Your task to perform on an android device: check storage Image 0: 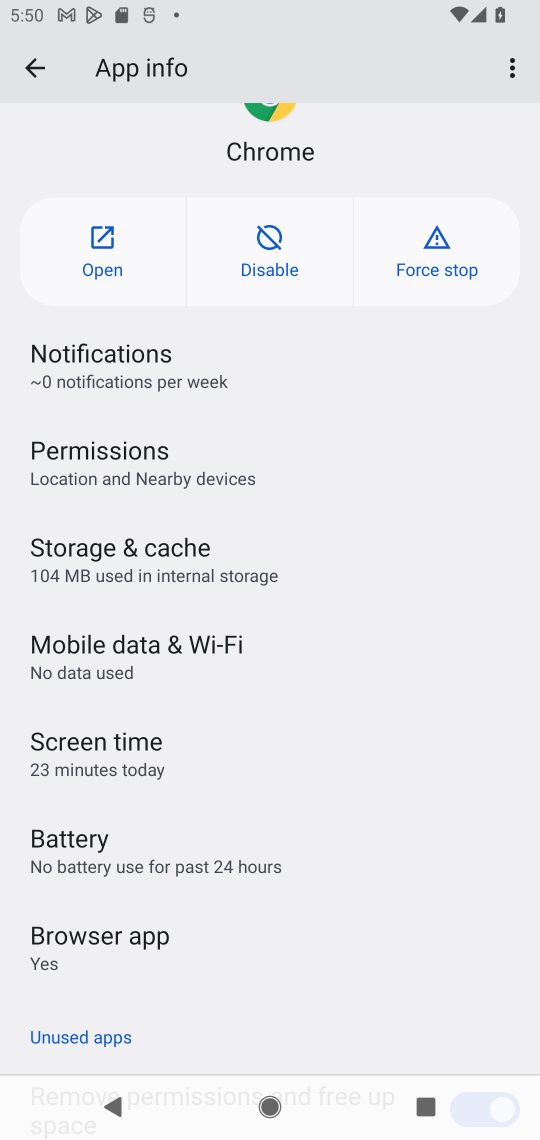
Step 0: press home button
Your task to perform on an android device: check storage Image 1: 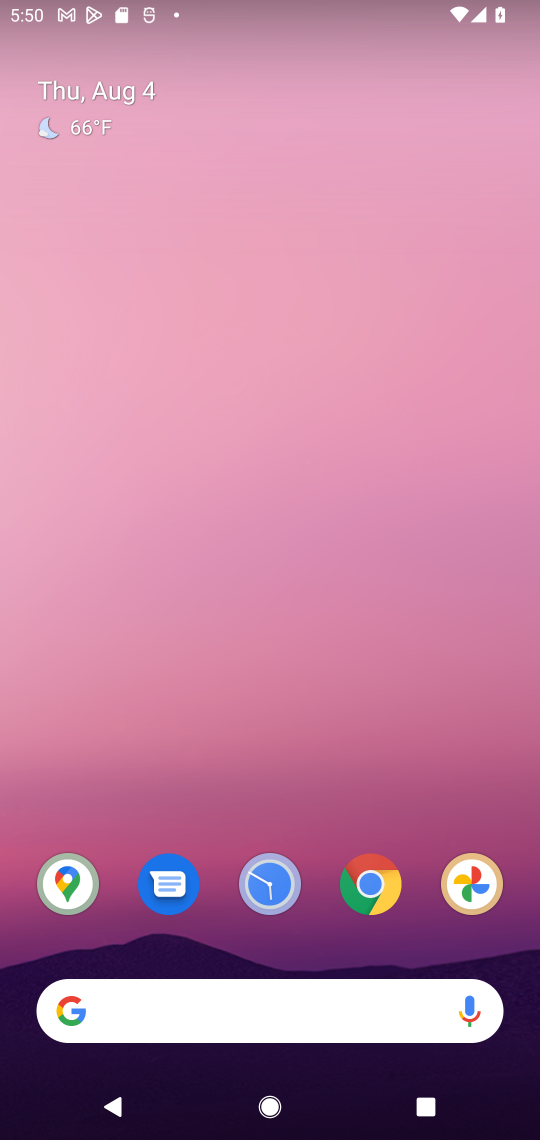
Step 1: drag from (299, 956) to (286, 184)
Your task to perform on an android device: check storage Image 2: 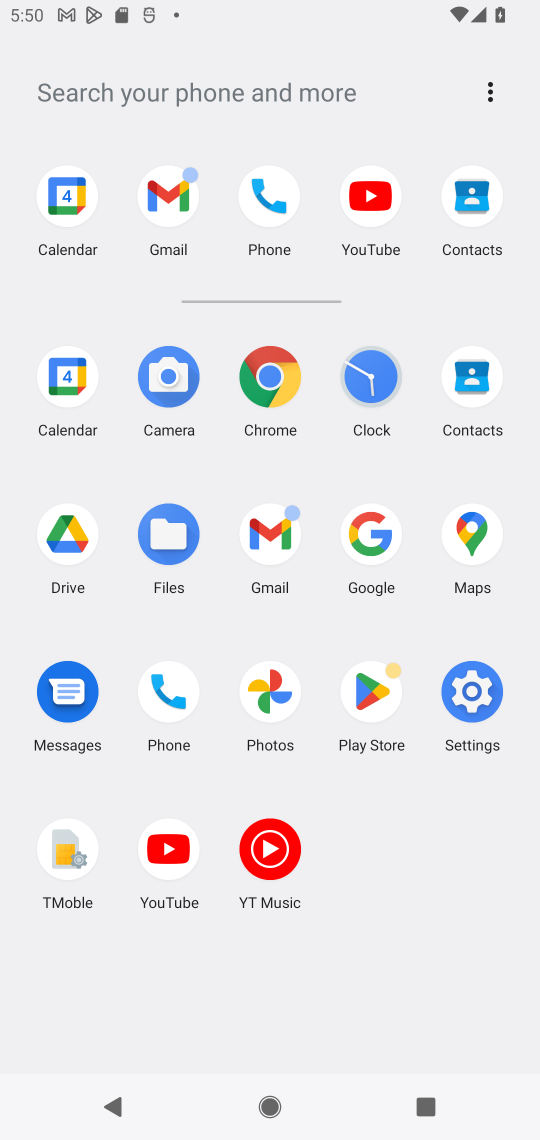
Step 2: click (468, 707)
Your task to perform on an android device: check storage Image 3: 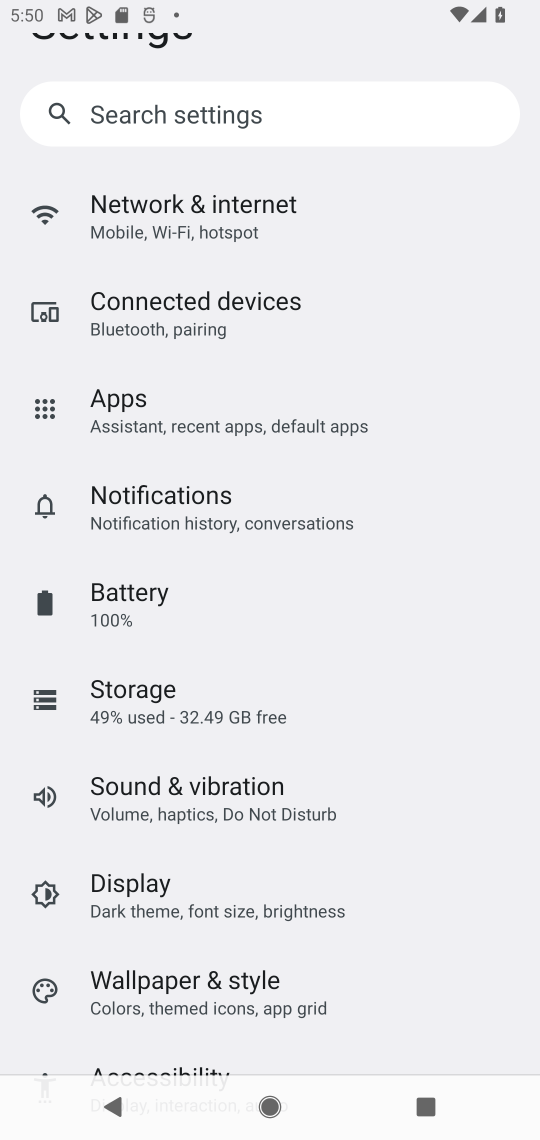
Step 3: click (312, 697)
Your task to perform on an android device: check storage Image 4: 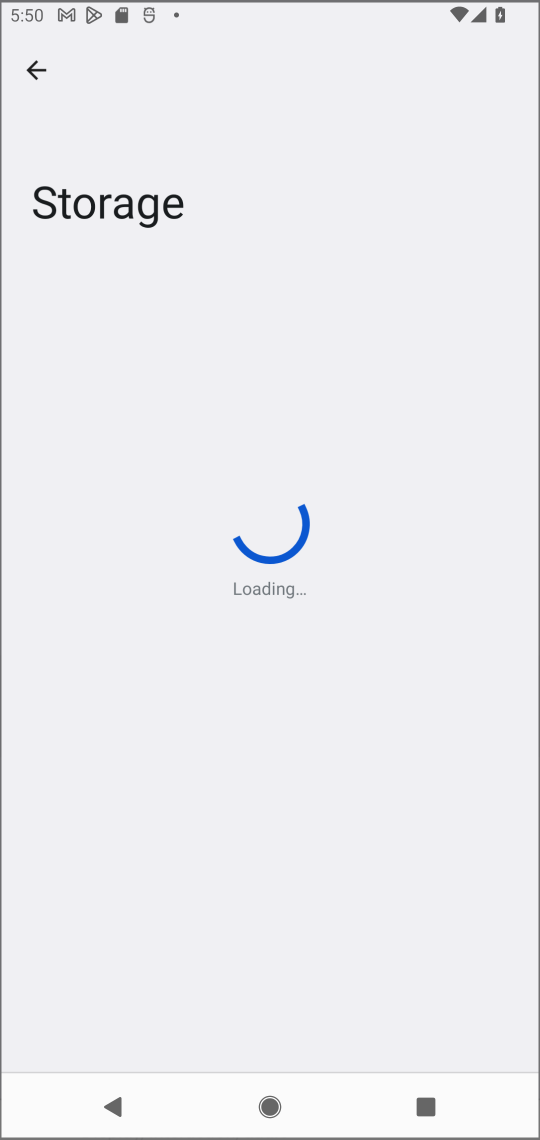
Step 4: task complete